Your task to perform on an android device: star an email in the gmail app Image 0: 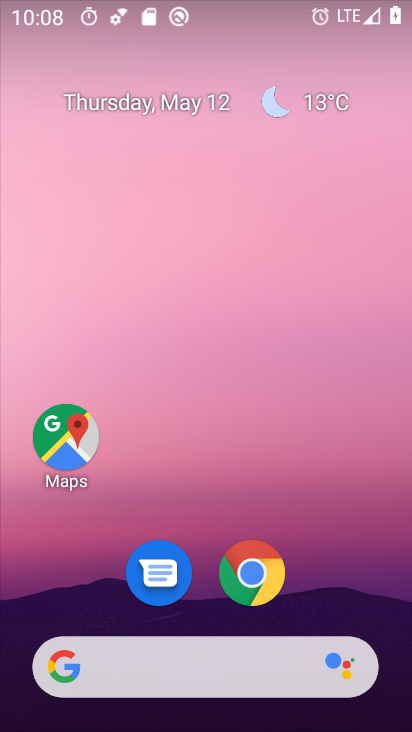
Step 0: drag from (395, 574) to (405, 254)
Your task to perform on an android device: star an email in the gmail app Image 1: 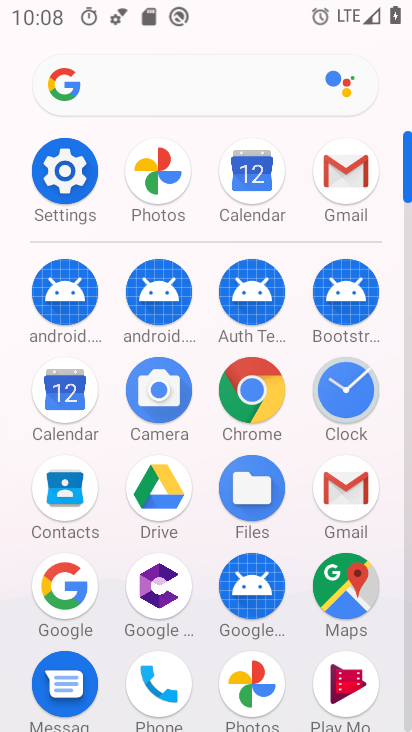
Step 1: click (349, 487)
Your task to perform on an android device: star an email in the gmail app Image 2: 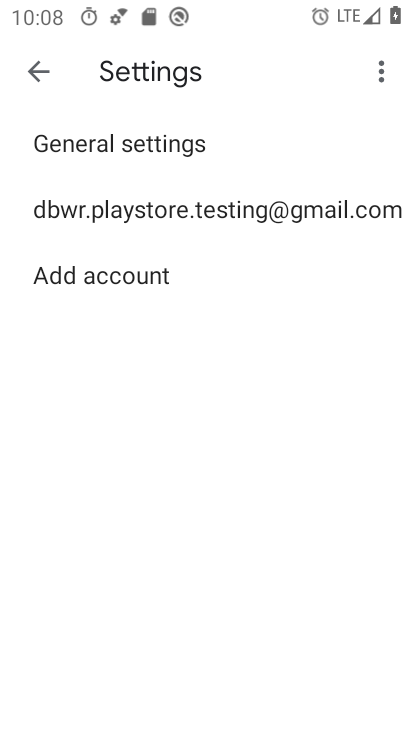
Step 2: click (31, 65)
Your task to perform on an android device: star an email in the gmail app Image 3: 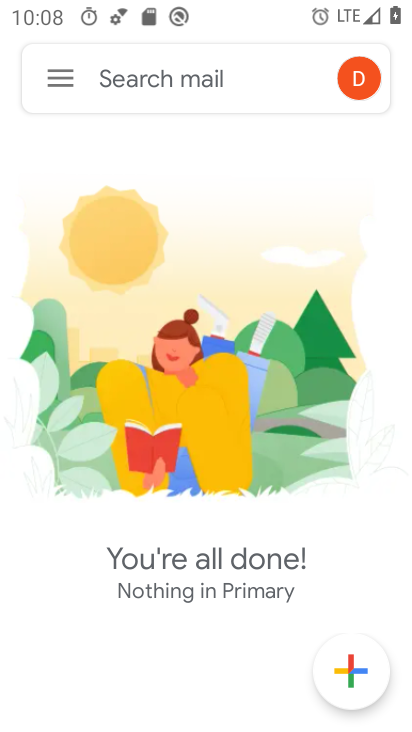
Step 3: click (65, 79)
Your task to perform on an android device: star an email in the gmail app Image 4: 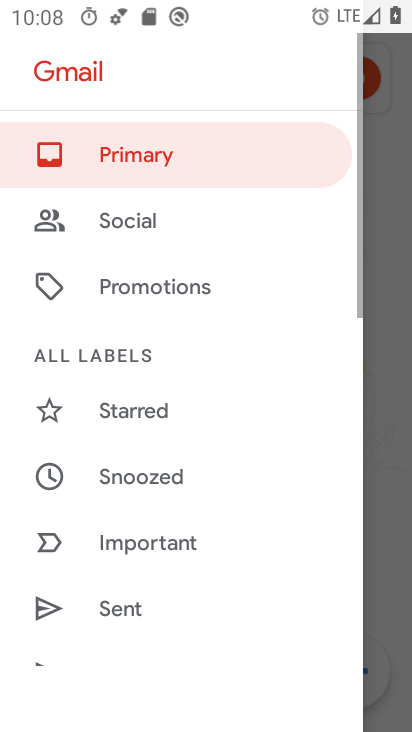
Step 4: click (111, 160)
Your task to perform on an android device: star an email in the gmail app Image 5: 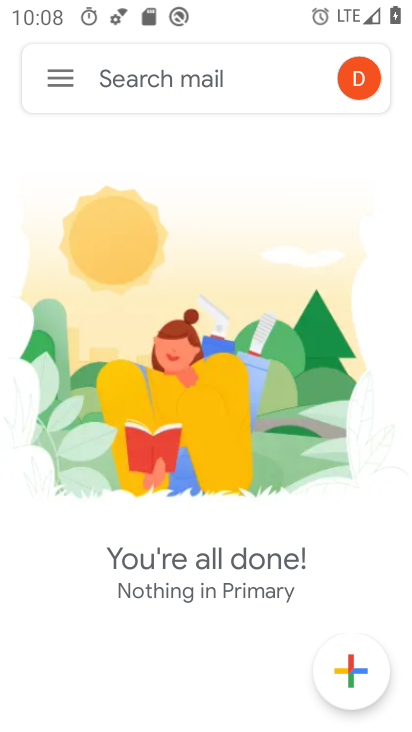
Step 5: task complete